Your task to perform on an android device: set the stopwatch Image 0: 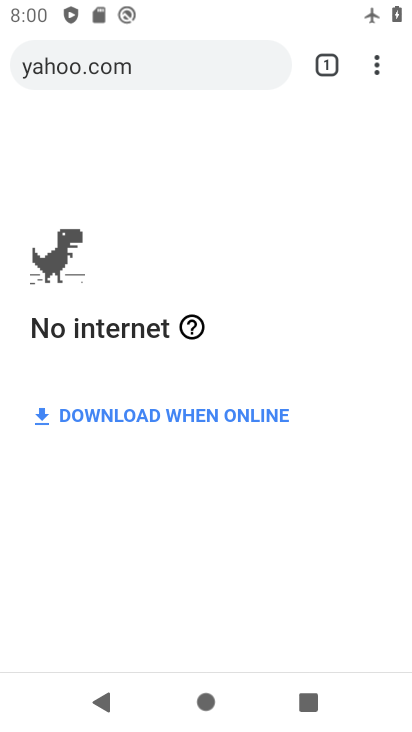
Step 0: press home button
Your task to perform on an android device: set the stopwatch Image 1: 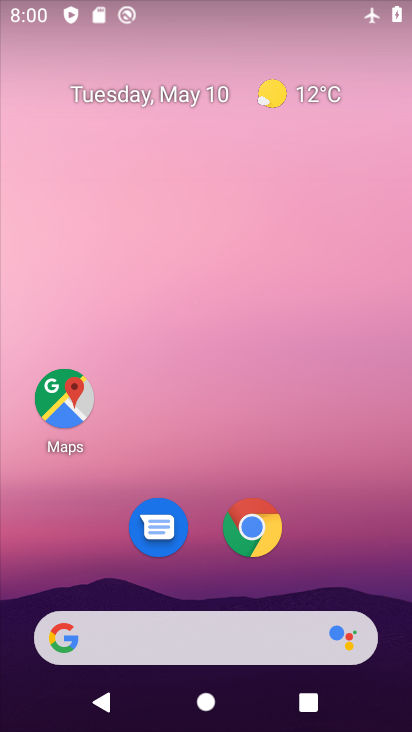
Step 1: drag from (156, 536) to (270, 259)
Your task to perform on an android device: set the stopwatch Image 2: 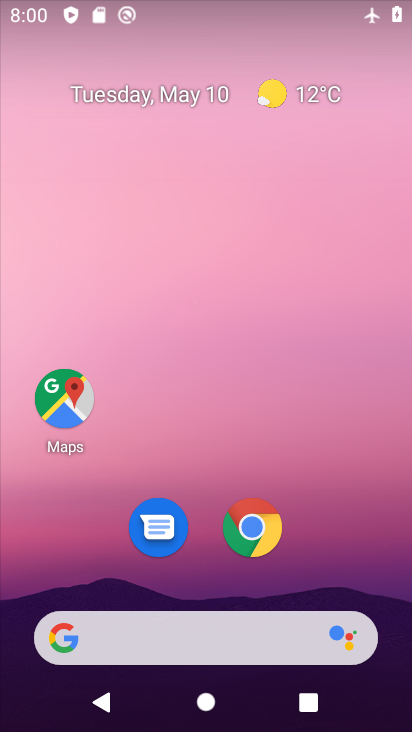
Step 2: drag from (231, 323) to (333, 24)
Your task to perform on an android device: set the stopwatch Image 3: 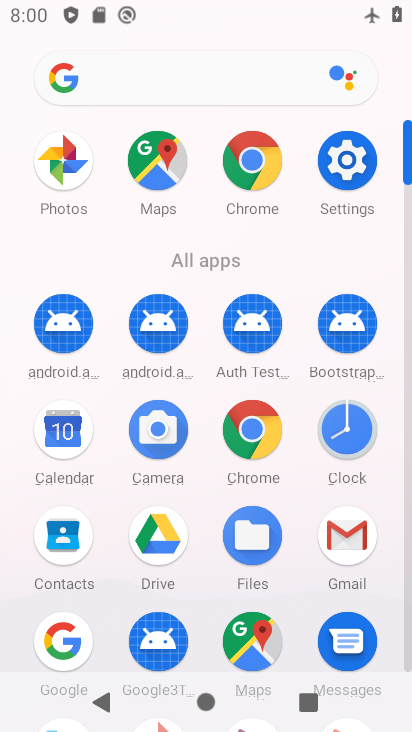
Step 3: click (357, 439)
Your task to perform on an android device: set the stopwatch Image 4: 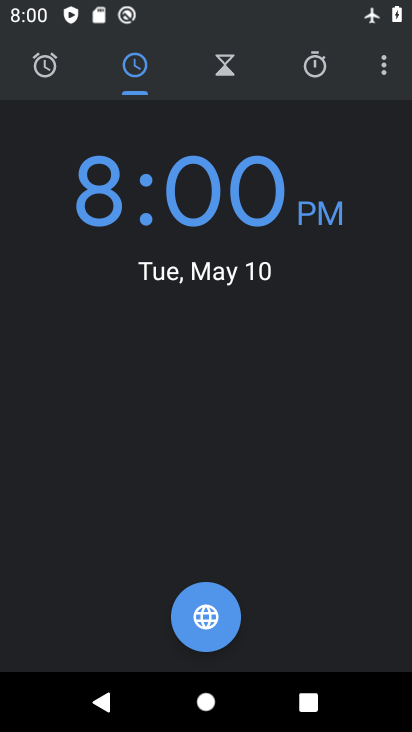
Step 4: click (309, 65)
Your task to perform on an android device: set the stopwatch Image 5: 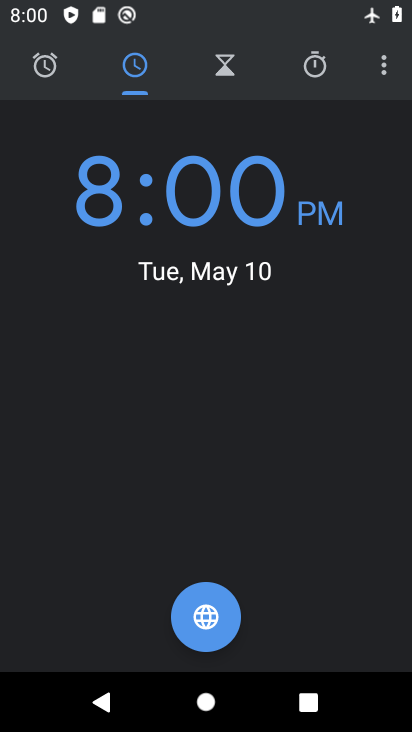
Step 5: click (327, 68)
Your task to perform on an android device: set the stopwatch Image 6: 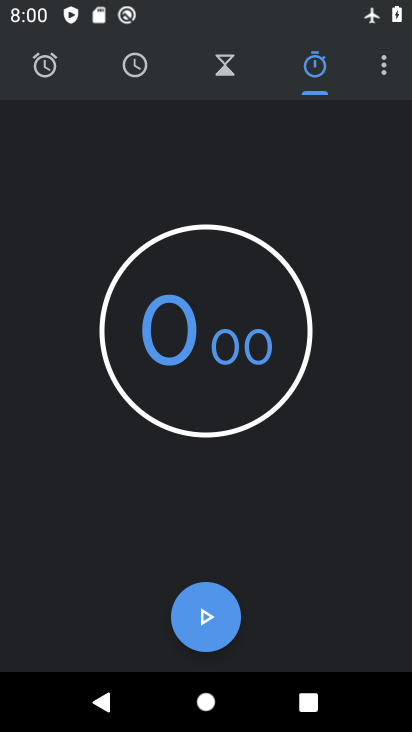
Step 6: click (217, 630)
Your task to perform on an android device: set the stopwatch Image 7: 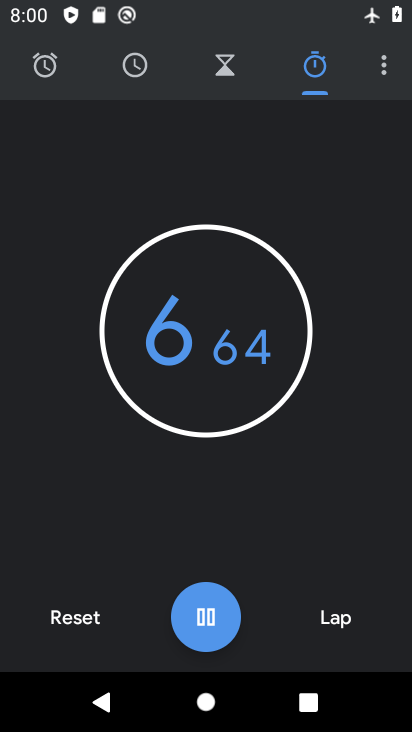
Step 7: task complete